Your task to perform on an android device: snooze an email in the gmail app Image 0: 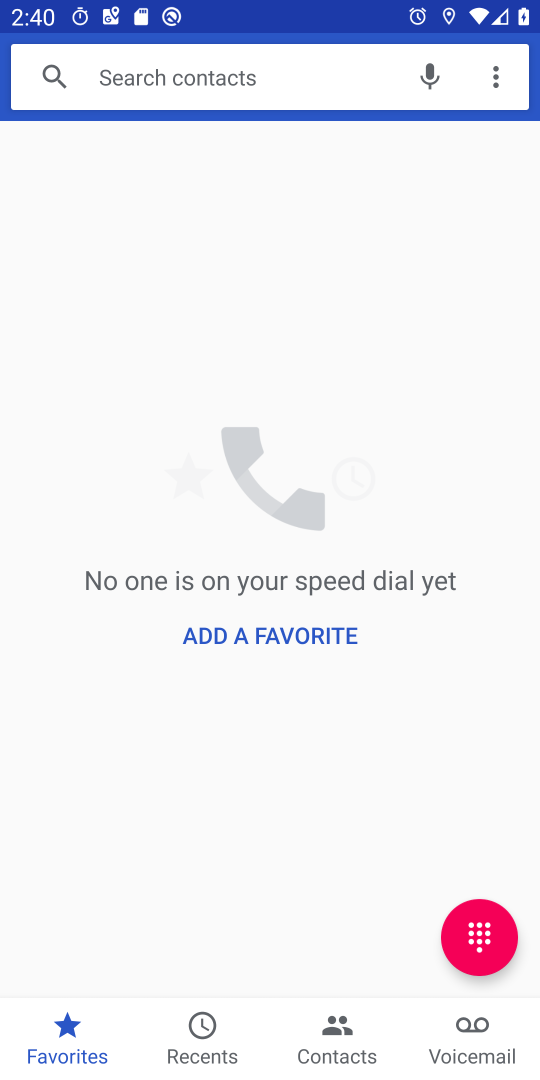
Step 0: press home button
Your task to perform on an android device: snooze an email in the gmail app Image 1: 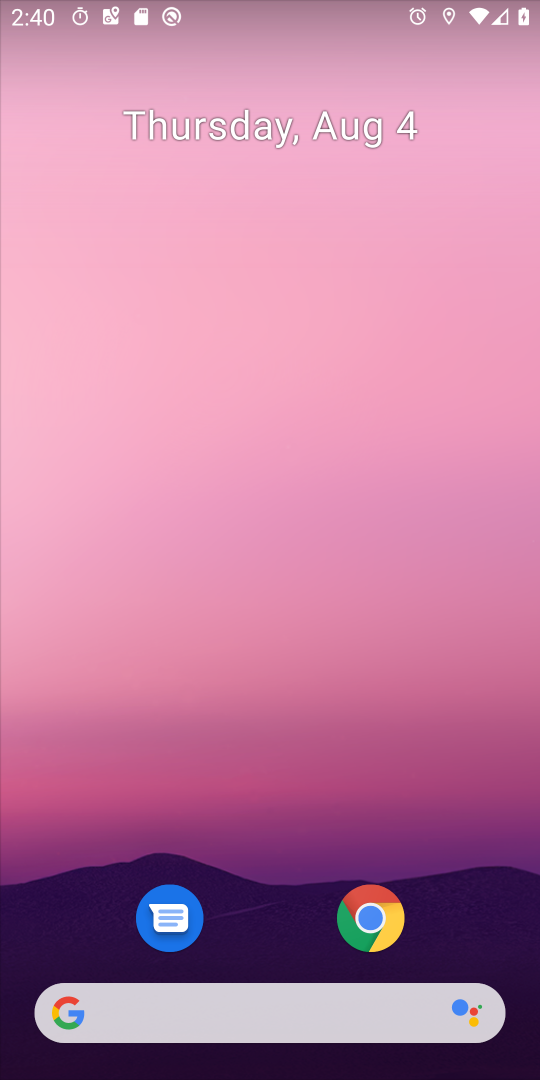
Step 1: drag from (235, 960) to (204, 358)
Your task to perform on an android device: snooze an email in the gmail app Image 2: 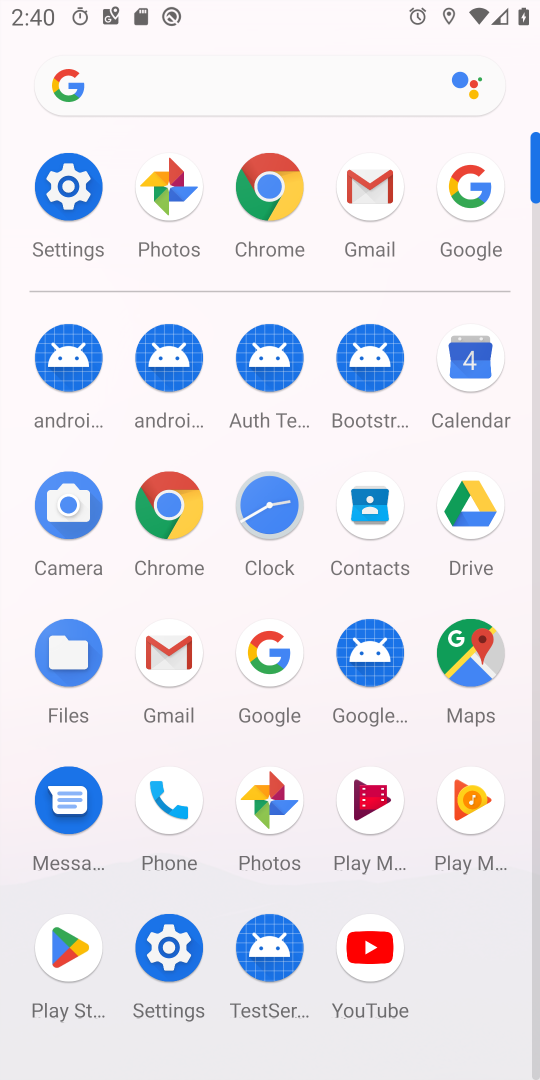
Step 2: click (371, 210)
Your task to perform on an android device: snooze an email in the gmail app Image 3: 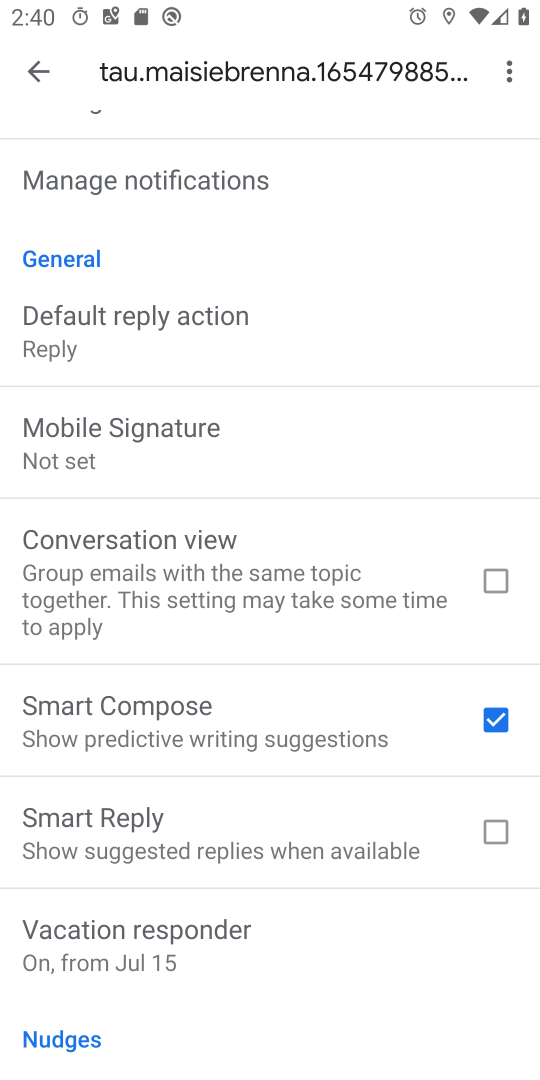
Step 3: click (35, 79)
Your task to perform on an android device: snooze an email in the gmail app Image 4: 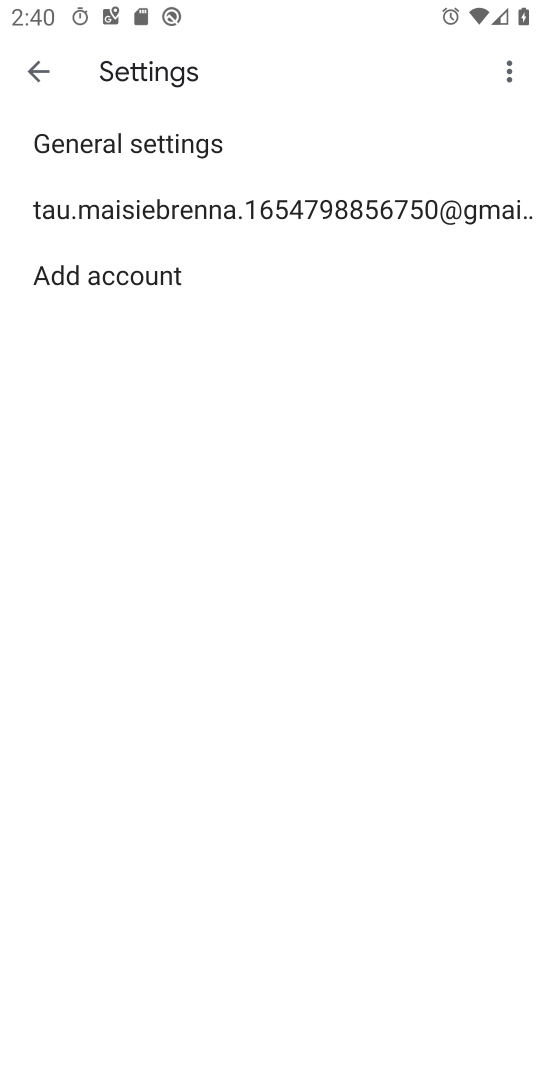
Step 4: click (35, 79)
Your task to perform on an android device: snooze an email in the gmail app Image 5: 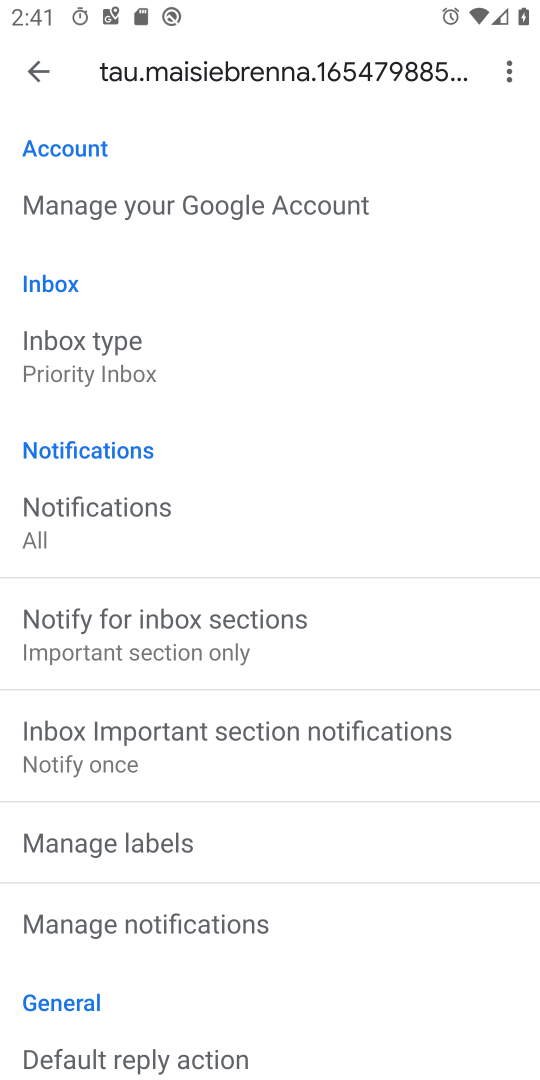
Step 5: click (26, 78)
Your task to perform on an android device: snooze an email in the gmail app Image 6: 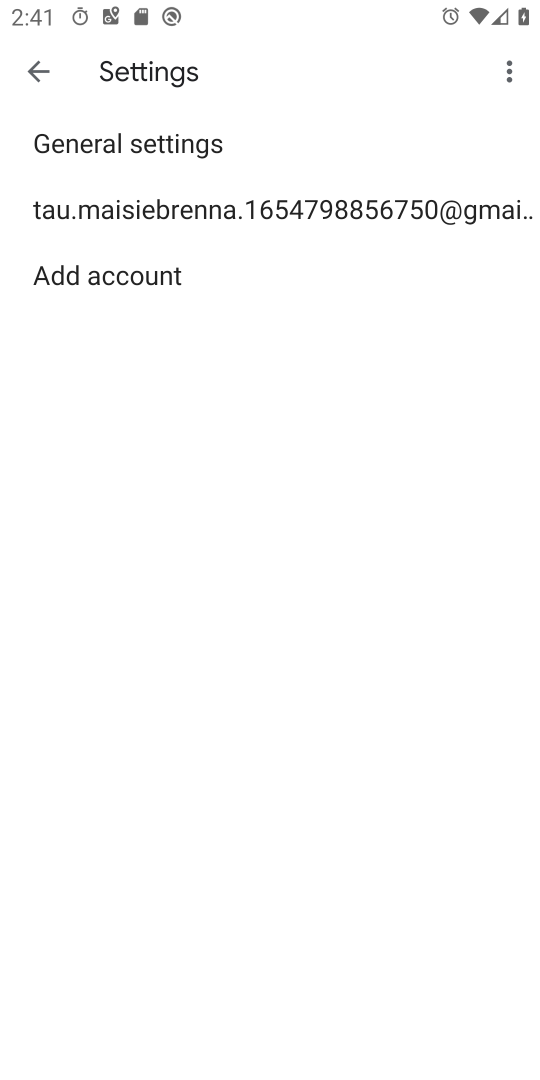
Step 6: click (26, 78)
Your task to perform on an android device: snooze an email in the gmail app Image 7: 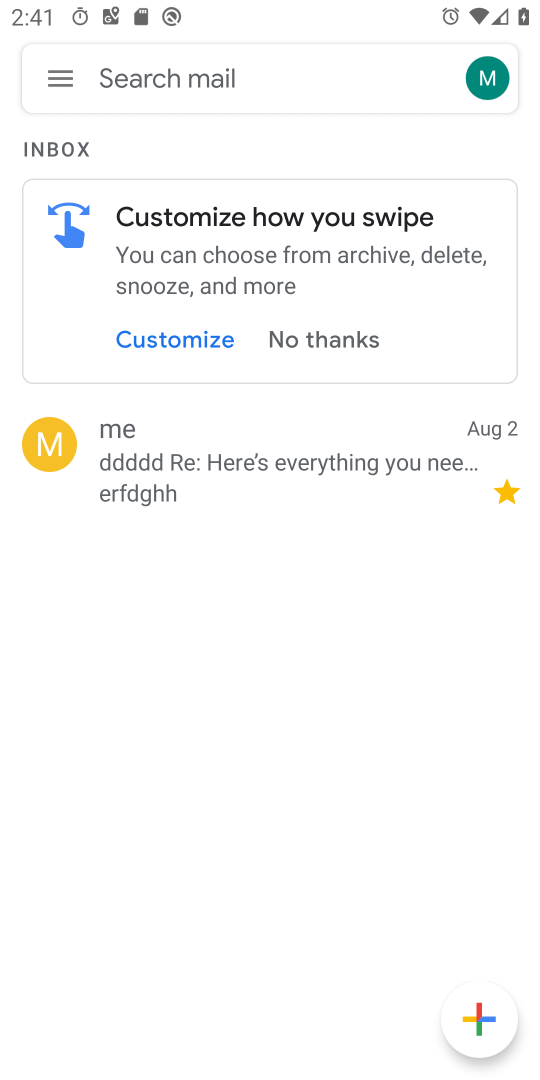
Step 7: click (225, 438)
Your task to perform on an android device: snooze an email in the gmail app Image 8: 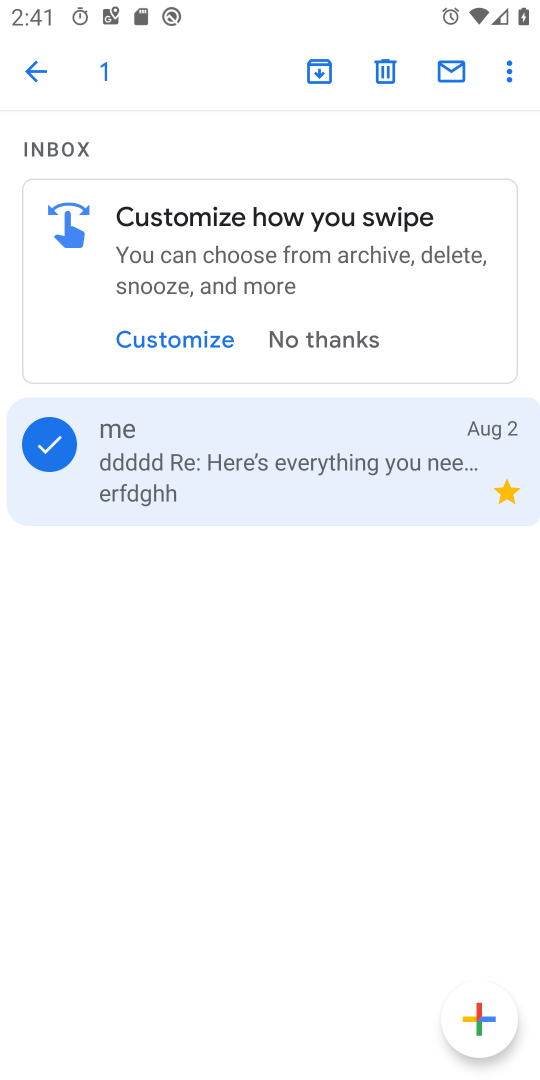
Step 8: click (508, 66)
Your task to perform on an android device: snooze an email in the gmail app Image 9: 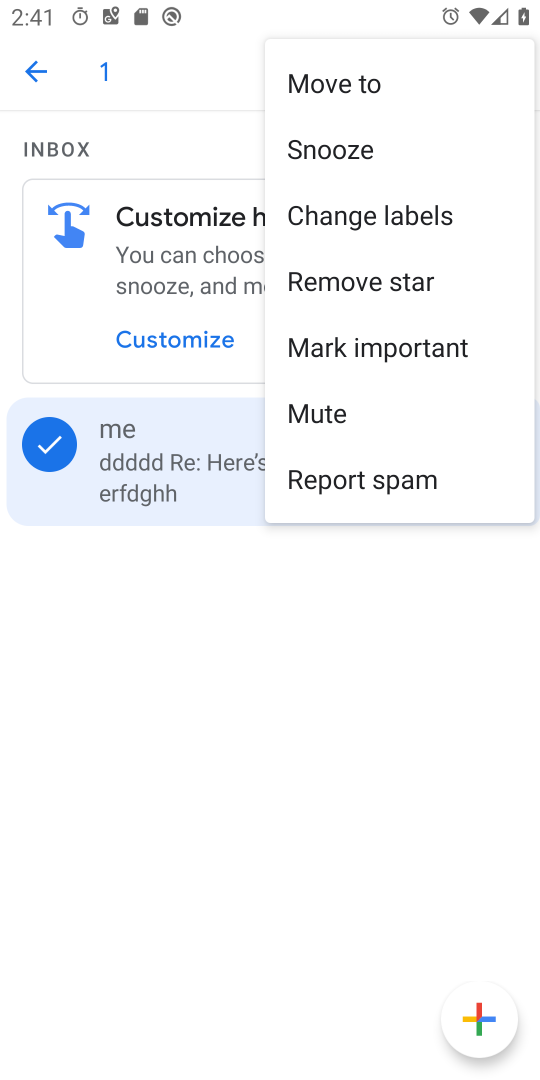
Step 9: click (418, 156)
Your task to perform on an android device: snooze an email in the gmail app Image 10: 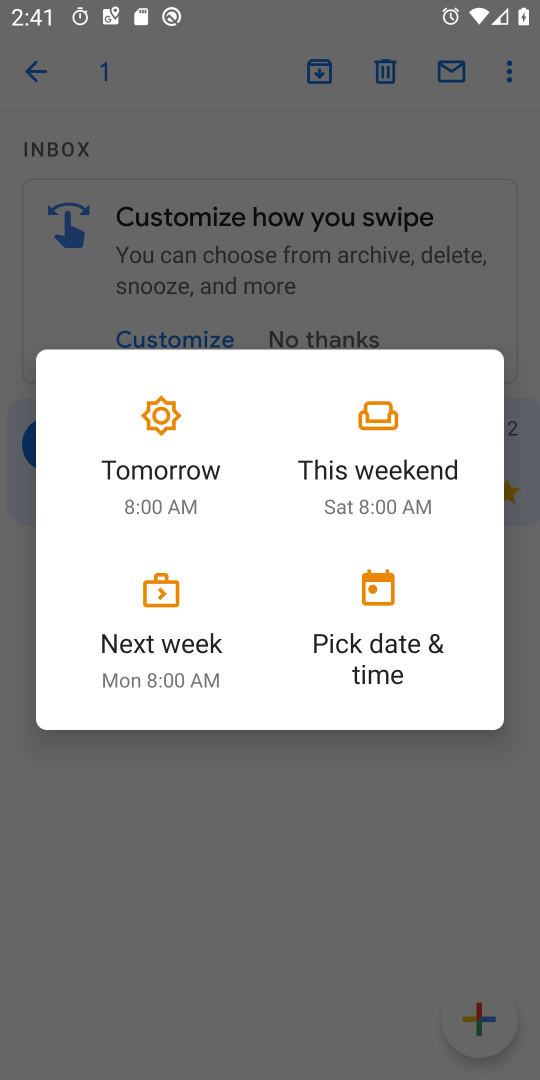
Step 10: click (213, 458)
Your task to perform on an android device: snooze an email in the gmail app Image 11: 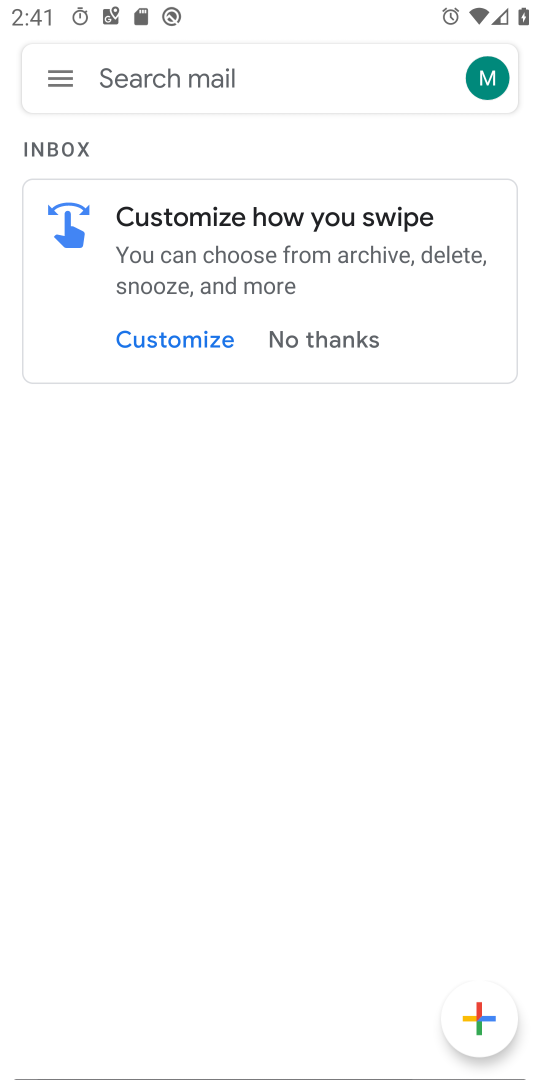
Step 11: task complete